Your task to perform on an android device: set the timer Image 0: 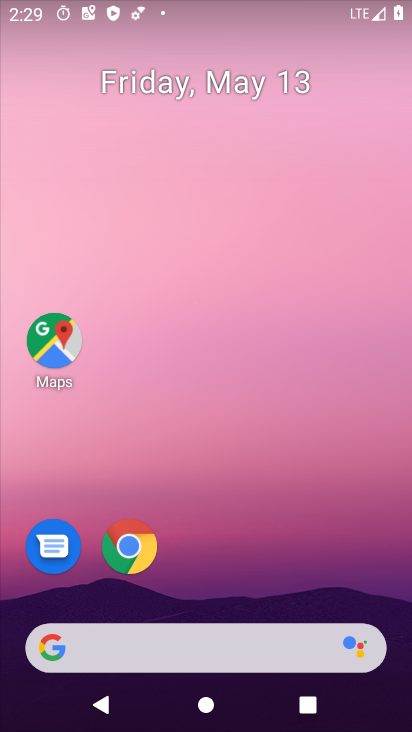
Step 0: drag from (282, 597) to (191, 141)
Your task to perform on an android device: set the timer Image 1: 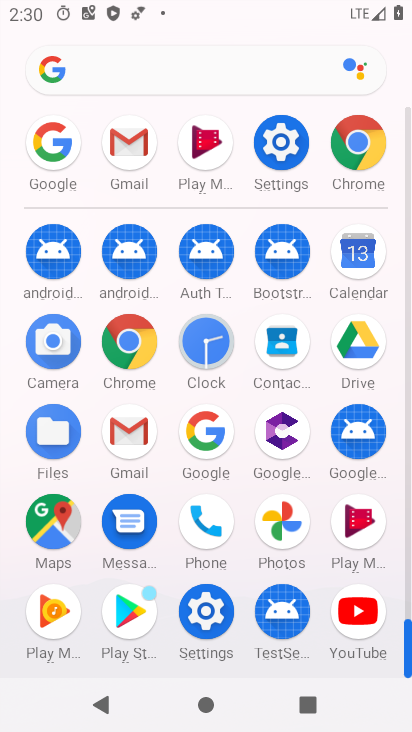
Step 1: click (220, 358)
Your task to perform on an android device: set the timer Image 2: 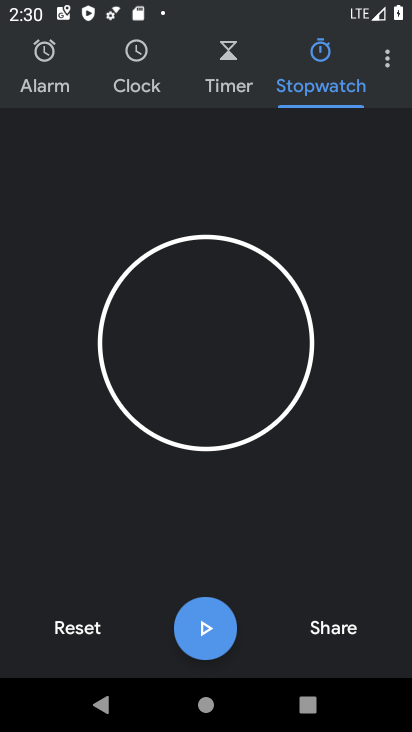
Step 2: click (236, 92)
Your task to perform on an android device: set the timer Image 3: 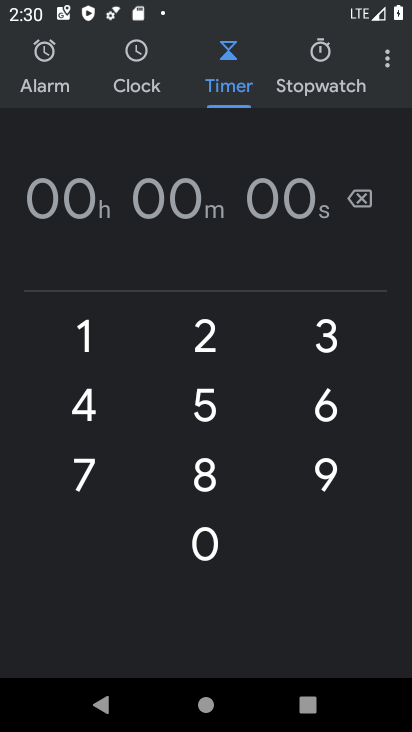
Step 3: click (214, 348)
Your task to perform on an android device: set the timer Image 4: 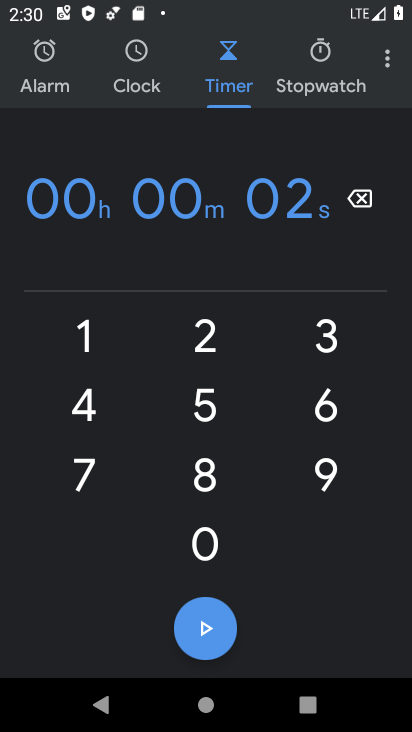
Step 4: task complete